Your task to perform on an android device: Open Google Maps Image 0: 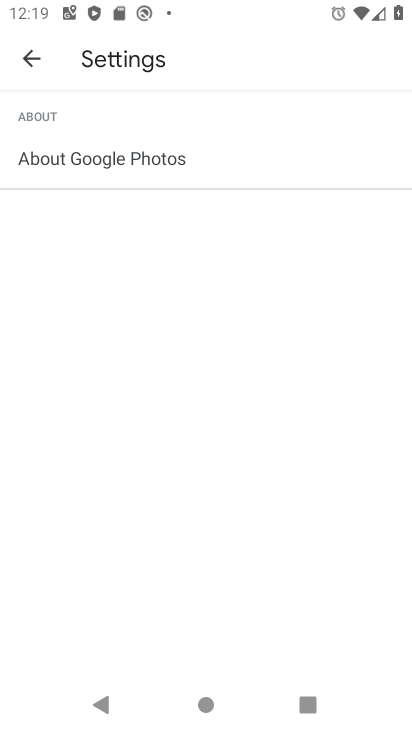
Step 0: press home button
Your task to perform on an android device: Open Google Maps Image 1: 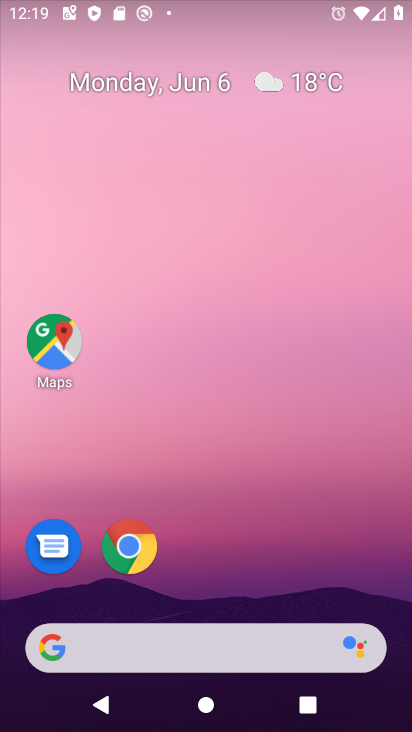
Step 1: drag from (161, 728) to (97, 140)
Your task to perform on an android device: Open Google Maps Image 2: 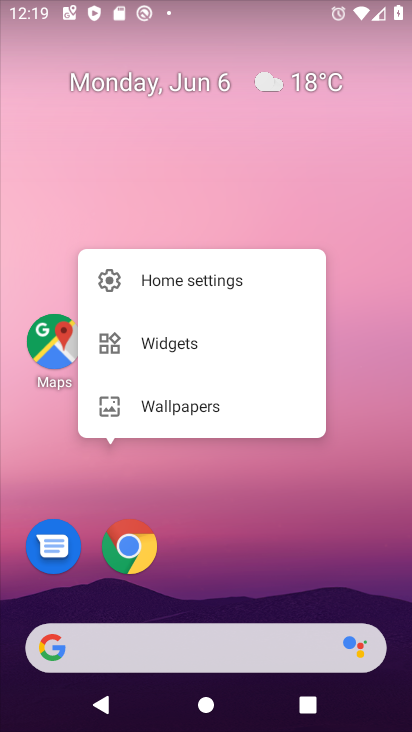
Step 2: click (197, 229)
Your task to perform on an android device: Open Google Maps Image 3: 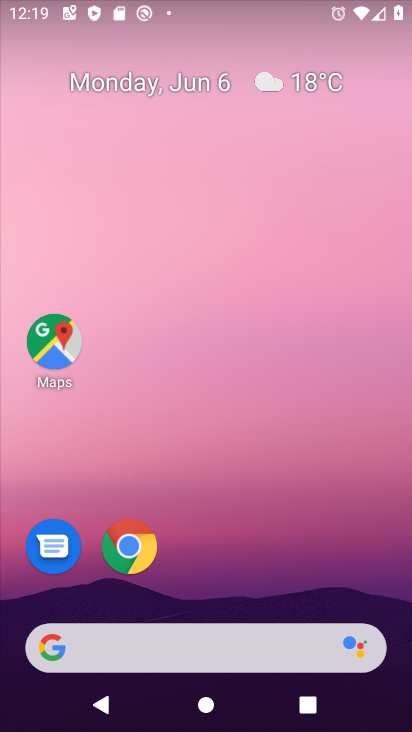
Step 3: click (56, 361)
Your task to perform on an android device: Open Google Maps Image 4: 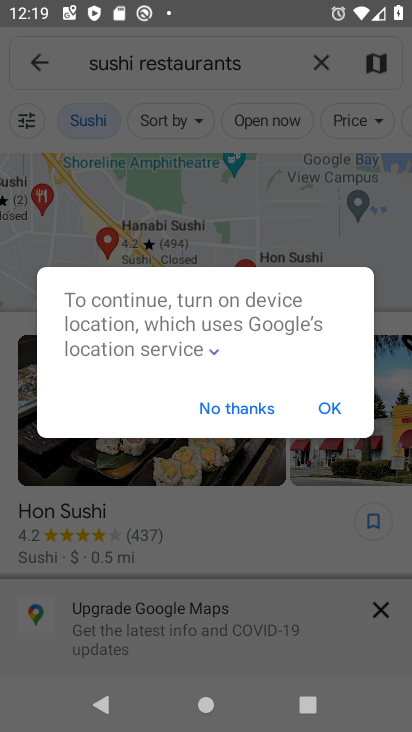
Step 4: click (239, 412)
Your task to perform on an android device: Open Google Maps Image 5: 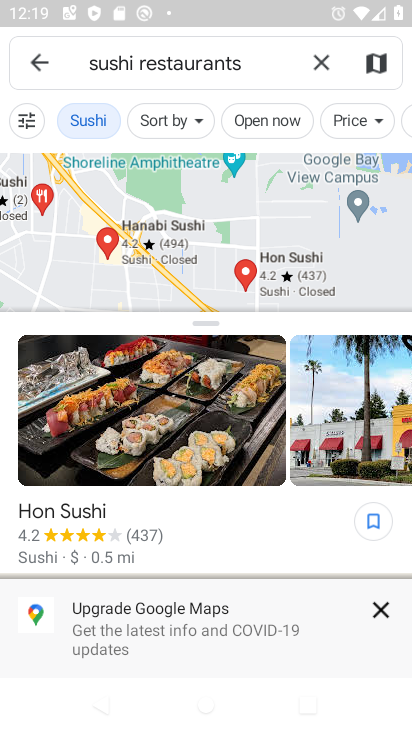
Step 5: click (380, 608)
Your task to perform on an android device: Open Google Maps Image 6: 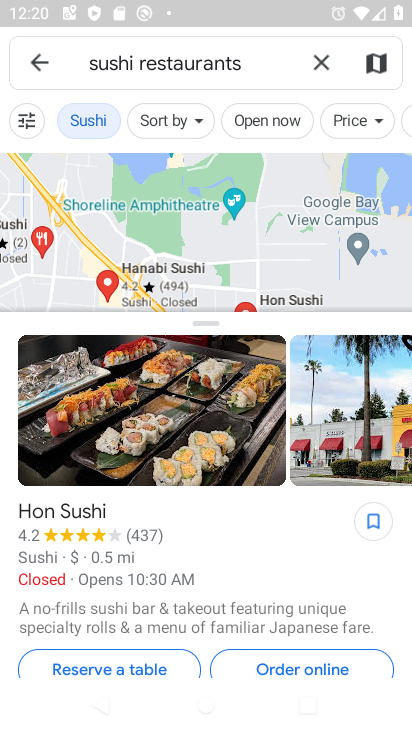
Step 6: task complete